Your task to perform on an android device: Open Youtube and go to the subscriptions tab Image 0: 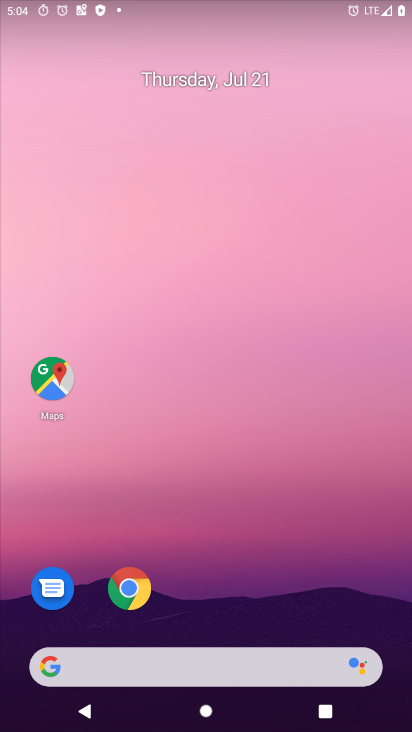
Step 0: drag from (291, 594) to (321, 3)
Your task to perform on an android device: Open Youtube and go to the subscriptions tab Image 1: 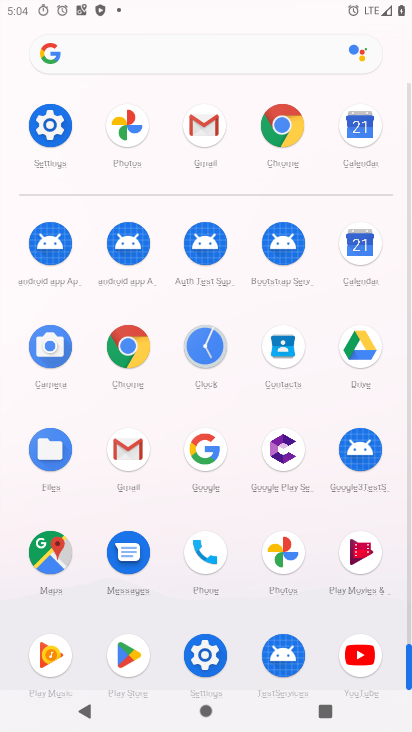
Step 1: click (358, 658)
Your task to perform on an android device: Open Youtube and go to the subscriptions tab Image 2: 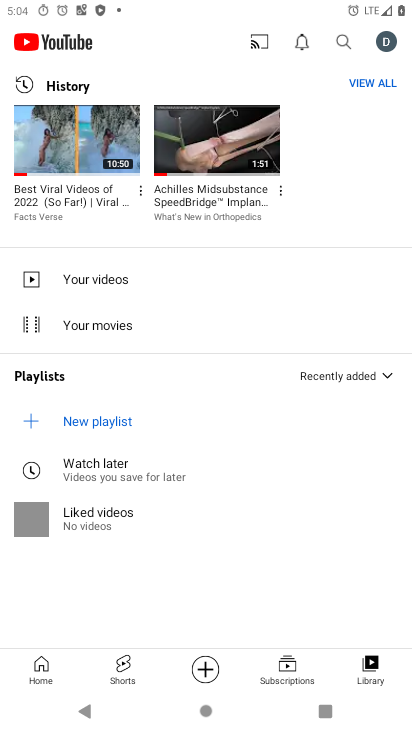
Step 2: click (292, 662)
Your task to perform on an android device: Open Youtube and go to the subscriptions tab Image 3: 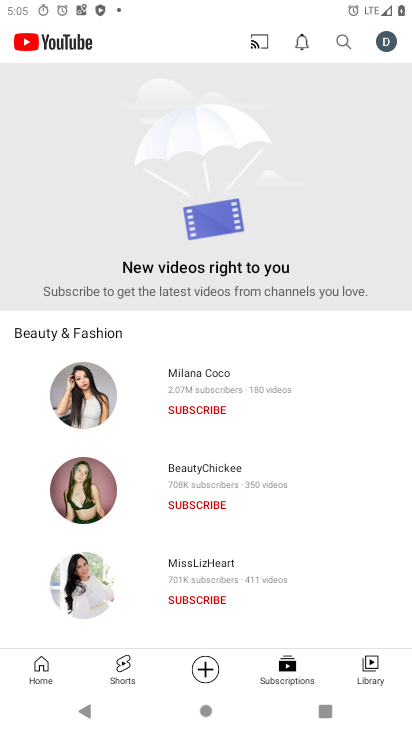
Step 3: task complete